Your task to perform on an android device: clear history in the chrome app Image 0: 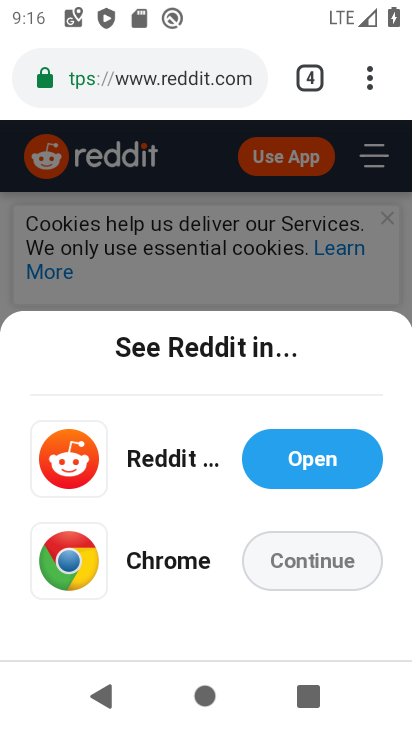
Step 0: press back button
Your task to perform on an android device: clear history in the chrome app Image 1: 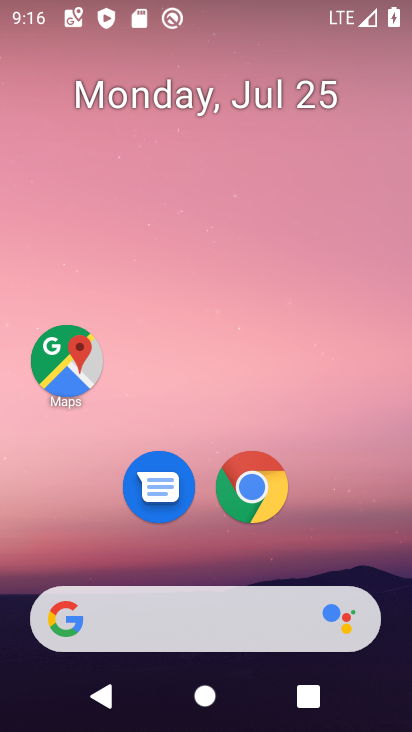
Step 1: click (225, 476)
Your task to perform on an android device: clear history in the chrome app Image 2: 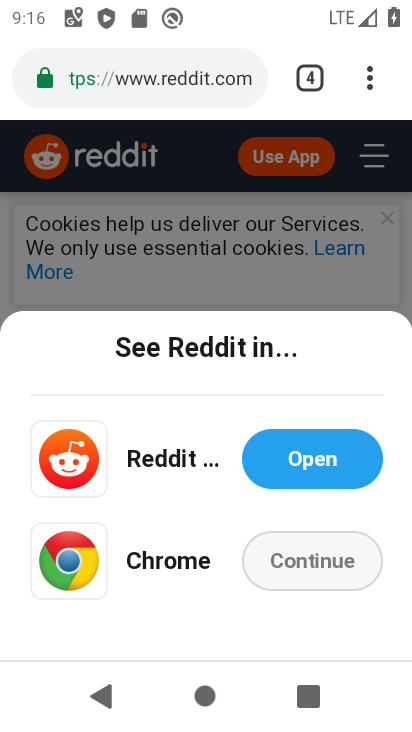
Step 2: task complete